Your task to perform on an android device: read, delete, or share a saved page in the chrome app Image 0: 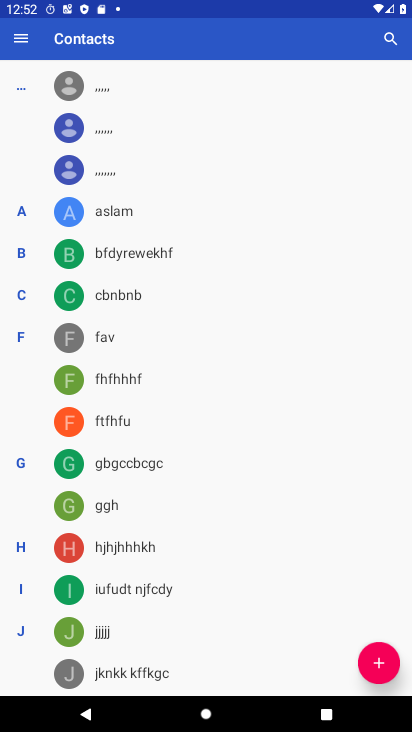
Step 0: press home button
Your task to perform on an android device: read, delete, or share a saved page in the chrome app Image 1: 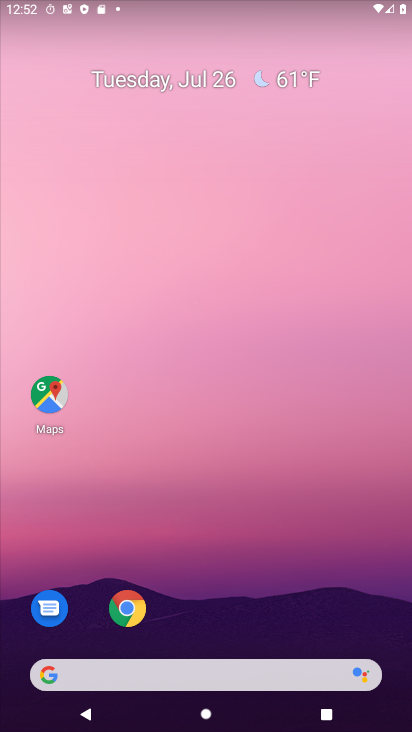
Step 1: drag from (341, 609) to (330, 68)
Your task to perform on an android device: read, delete, or share a saved page in the chrome app Image 2: 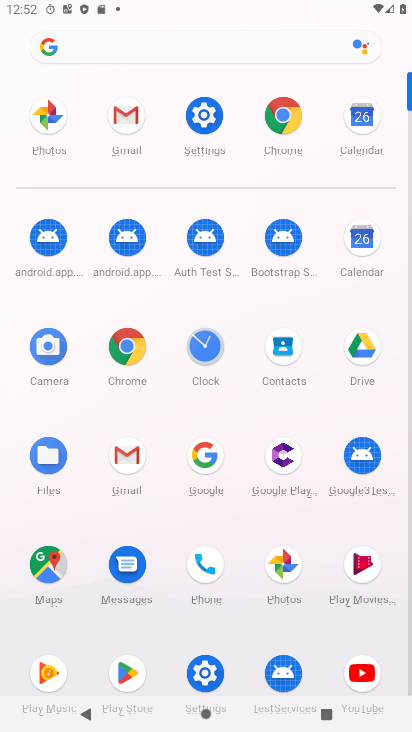
Step 2: click (282, 128)
Your task to perform on an android device: read, delete, or share a saved page in the chrome app Image 3: 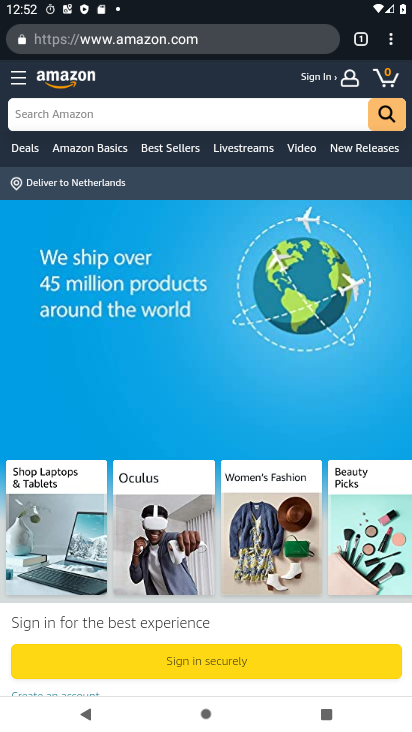
Step 3: click (396, 47)
Your task to perform on an android device: read, delete, or share a saved page in the chrome app Image 4: 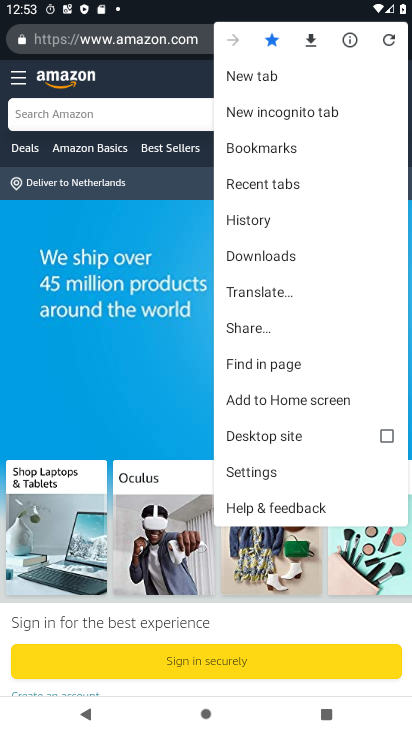
Step 4: click (288, 253)
Your task to perform on an android device: read, delete, or share a saved page in the chrome app Image 5: 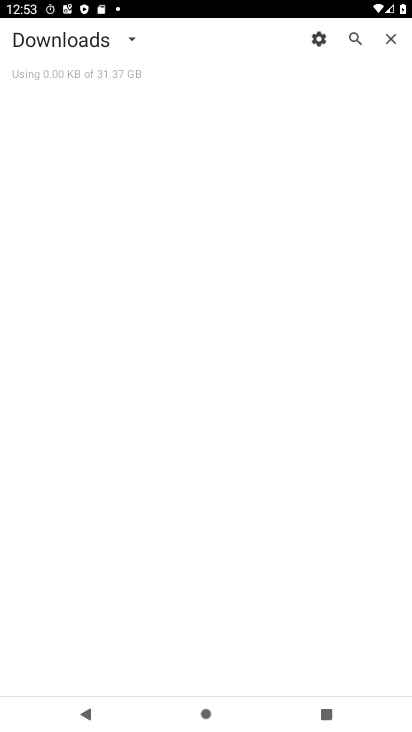
Step 5: click (130, 41)
Your task to perform on an android device: read, delete, or share a saved page in the chrome app Image 6: 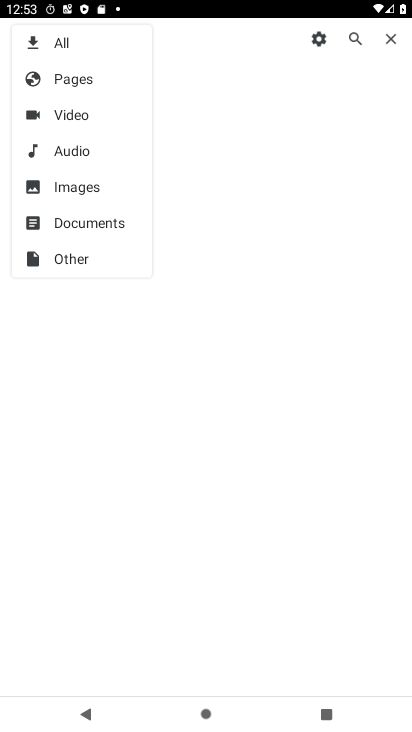
Step 6: click (94, 81)
Your task to perform on an android device: read, delete, or share a saved page in the chrome app Image 7: 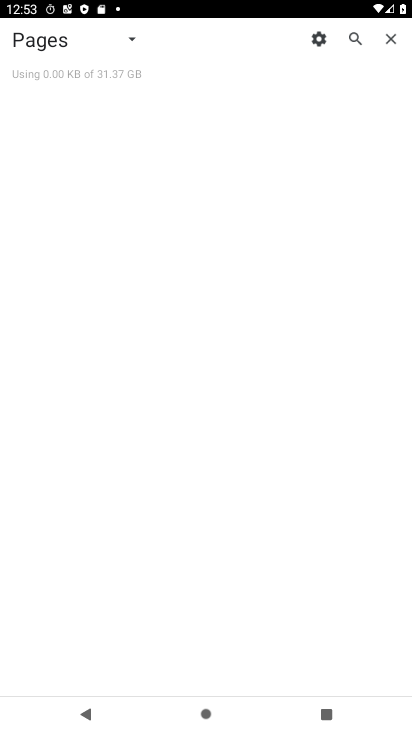
Step 7: task complete